Your task to perform on an android device: Open Google Chrome and click the shortcut for Amazon.com Image 0: 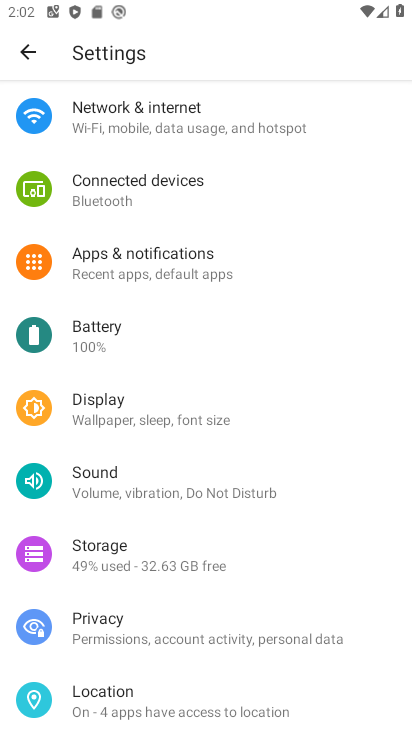
Step 0: press home button
Your task to perform on an android device: Open Google Chrome and click the shortcut for Amazon.com Image 1: 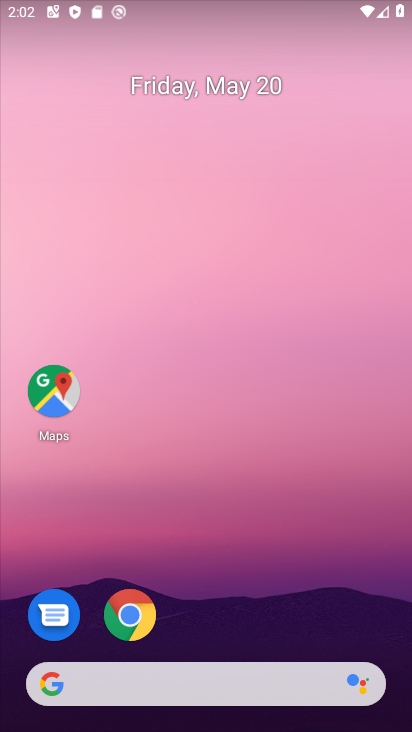
Step 1: click (130, 606)
Your task to perform on an android device: Open Google Chrome and click the shortcut for Amazon.com Image 2: 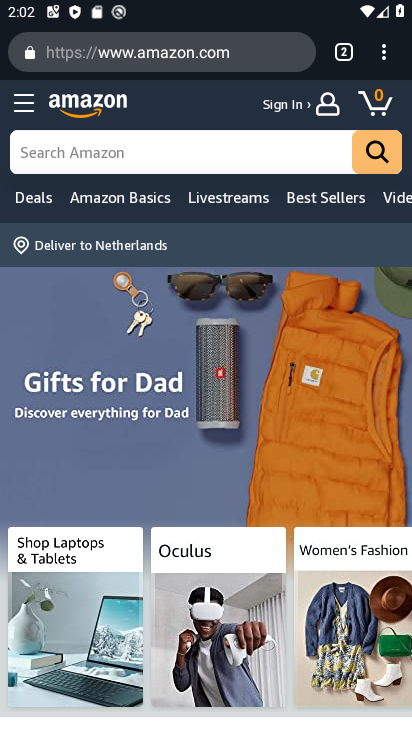
Step 2: click (375, 49)
Your task to perform on an android device: Open Google Chrome and click the shortcut for Amazon.com Image 3: 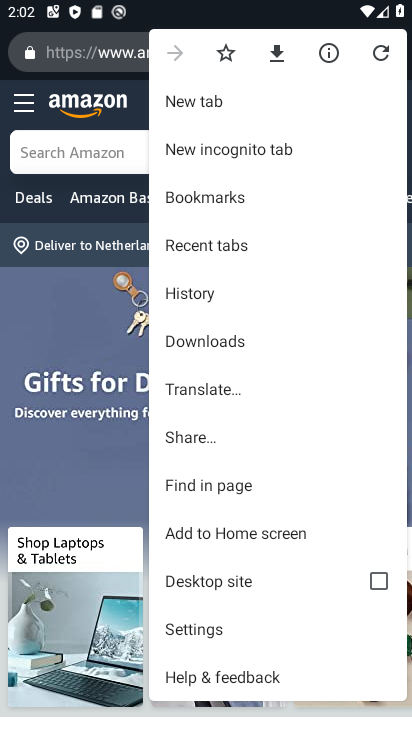
Step 3: click (216, 85)
Your task to perform on an android device: Open Google Chrome and click the shortcut for Amazon.com Image 4: 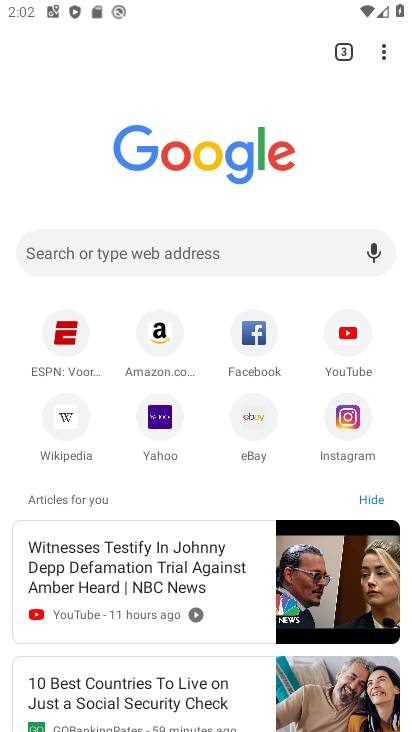
Step 4: click (147, 326)
Your task to perform on an android device: Open Google Chrome and click the shortcut for Amazon.com Image 5: 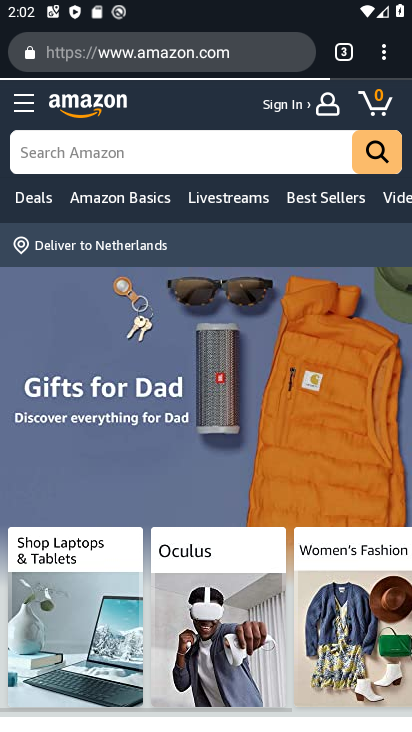
Step 5: task complete